Your task to perform on an android device: see tabs open on other devices in the chrome app Image 0: 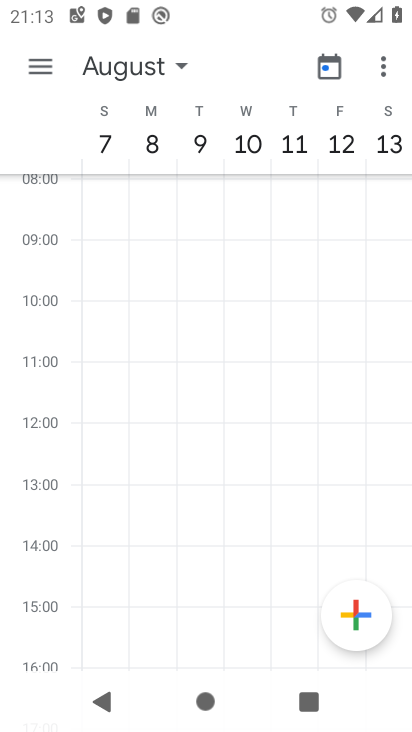
Step 0: press home button
Your task to perform on an android device: see tabs open on other devices in the chrome app Image 1: 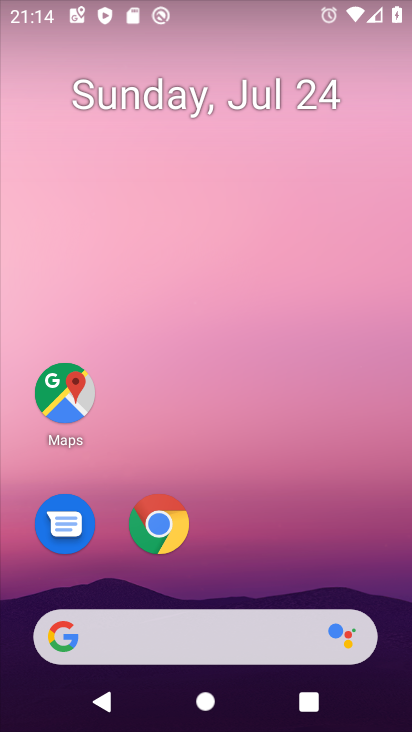
Step 1: click (172, 528)
Your task to perform on an android device: see tabs open on other devices in the chrome app Image 2: 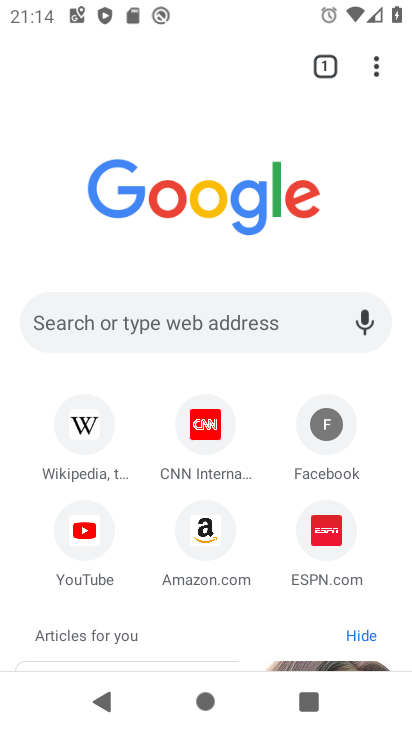
Step 2: click (372, 66)
Your task to perform on an android device: see tabs open on other devices in the chrome app Image 3: 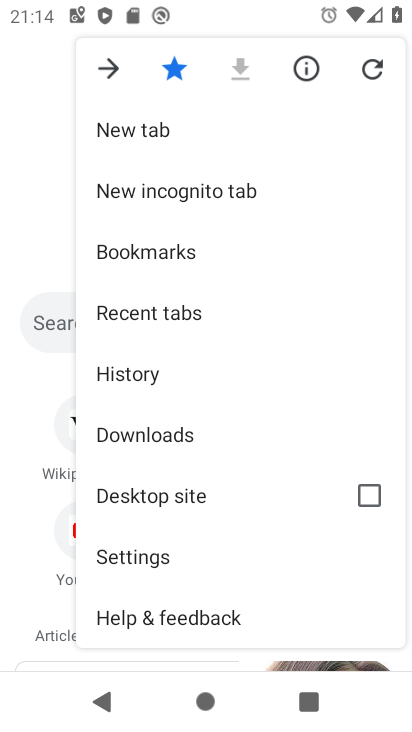
Step 3: click (179, 300)
Your task to perform on an android device: see tabs open on other devices in the chrome app Image 4: 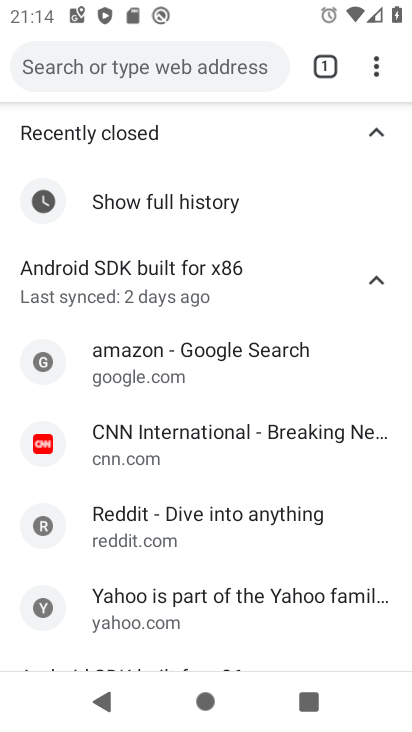
Step 4: task complete